Your task to perform on an android device: Go to ESPN.com Image 0: 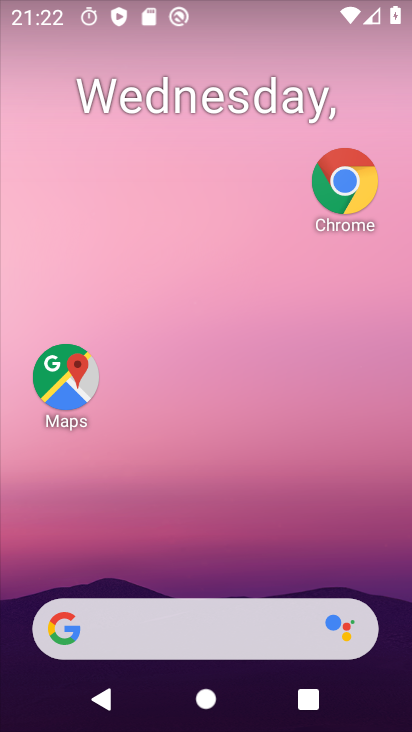
Step 0: drag from (227, 658) to (357, 156)
Your task to perform on an android device: Go to ESPN.com Image 1: 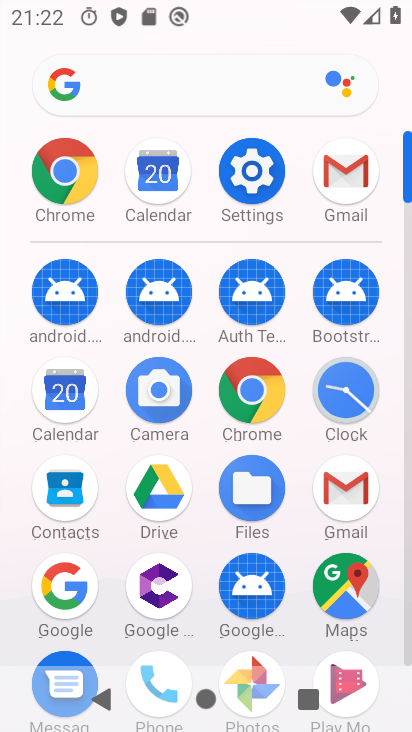
Step 1: click (69, 191)
Your task to perform on an android device: Go to ESPN.com Image 2: 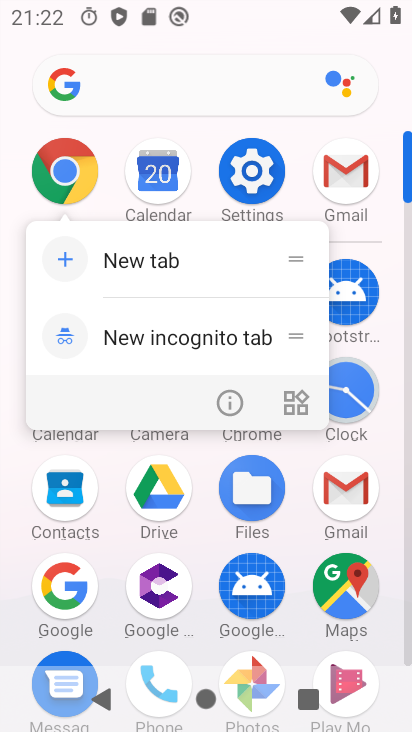
Step 2: click (69, 191)
Your task to perform on an android device: Go to ESPN.com Image 3: 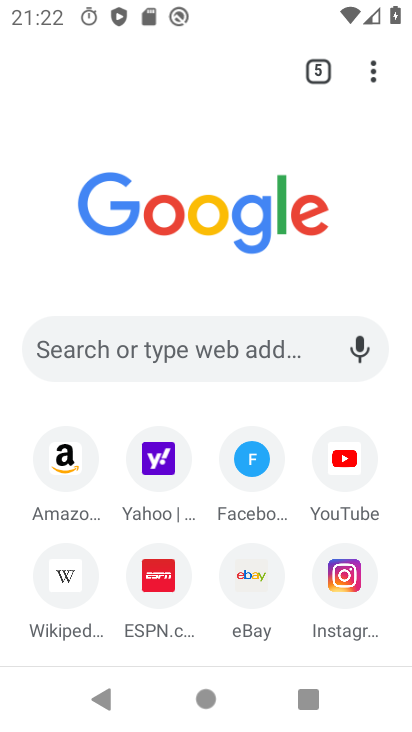
Step 3: drag from (64, 207) to (109, 526)
Your task to perform on an android device: Go to ESPN.com Image 4: 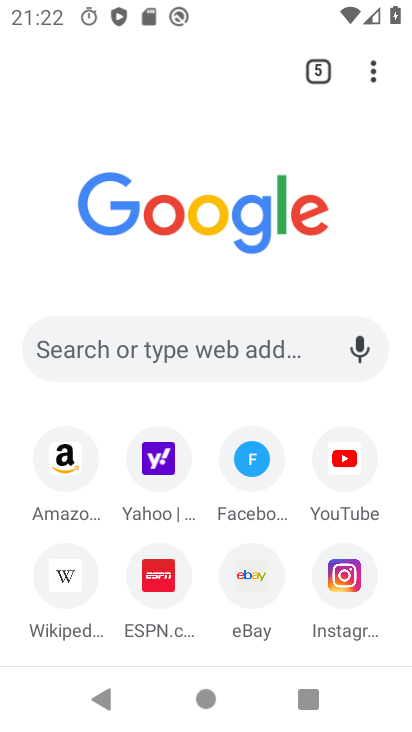
Step 4: click (151, 563)
Your task to perform on an android device: Go to ESPN.com Image 5: 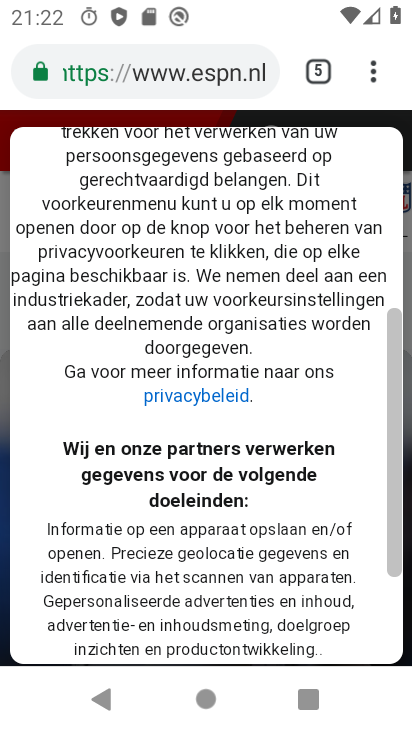
Step 5: drag from (275, 500) to (290, 264)
Your task to perform on an android device: Go to ESPN.com Image 6: 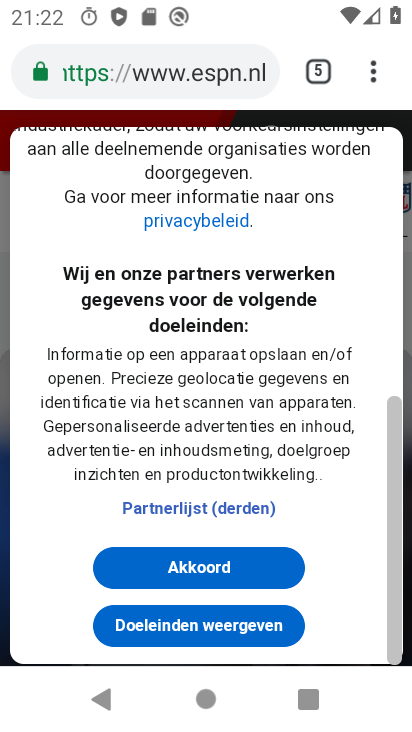
Step 6: click (194, 581)
Your task to perform on an android device: Go to ESPN.com Image 7: 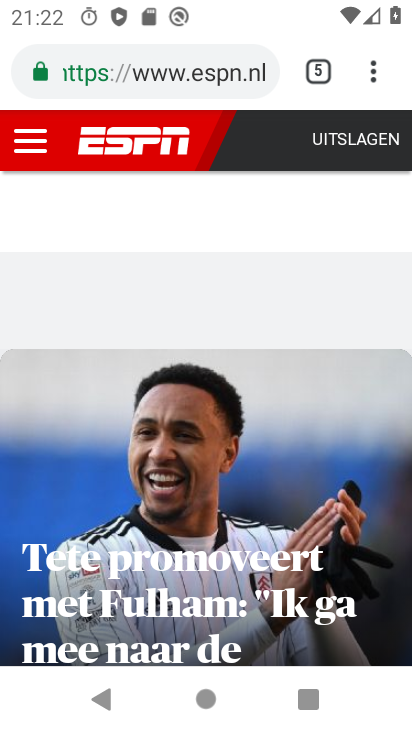
Step 7: task complete